Your task to perform on an android device: Open Google Chrome and click the shortcut for Amazon.com Image 0: 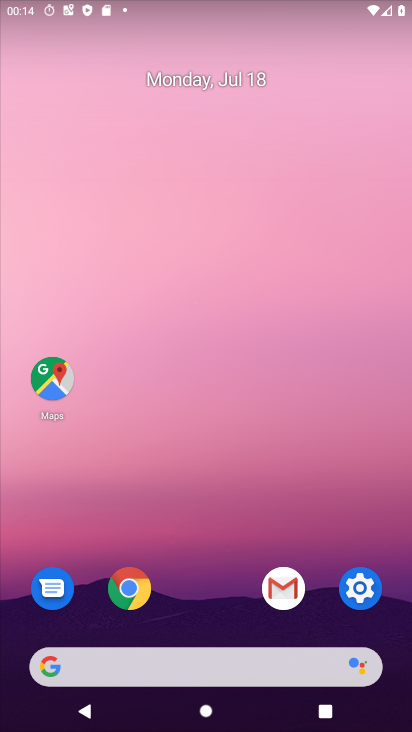
Step 0: press home button
Your task to perform on an android device: Open Google Chrome and click the shortcut for Amazon.com Image 1: 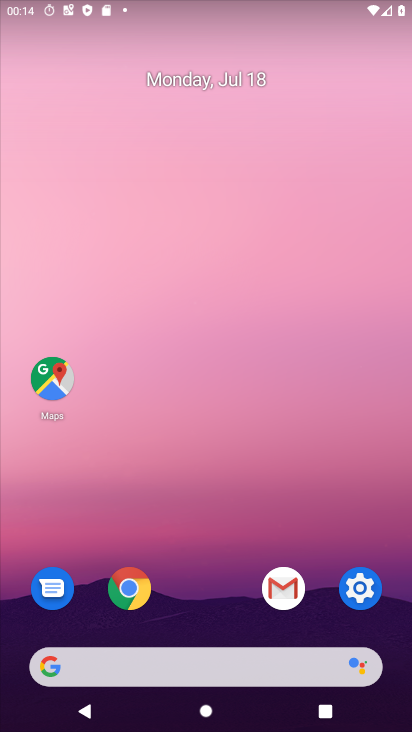
Step 1: click (116, 595)
Your task to perform on an android device: Open Google Chrome and click the shortcut for Amazon.com Image 2: 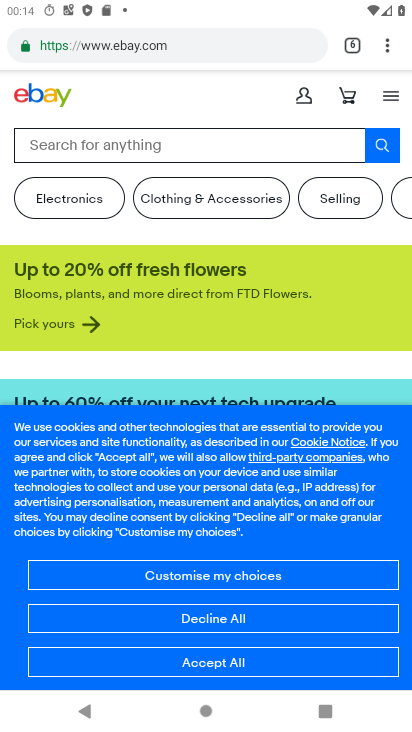
Step 2: click (344, 46)
Your task to perform on an android device: Open Google Chrome and click the shortcut for Amazon.com Image 3: 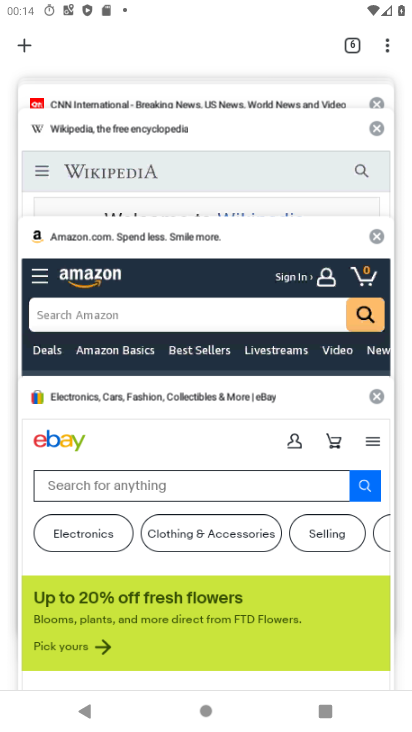
Step 3: click (156, 271)
Your task to perform on an android device: Open Google Chrome and click the shortcut for Amazon.com Image 4: 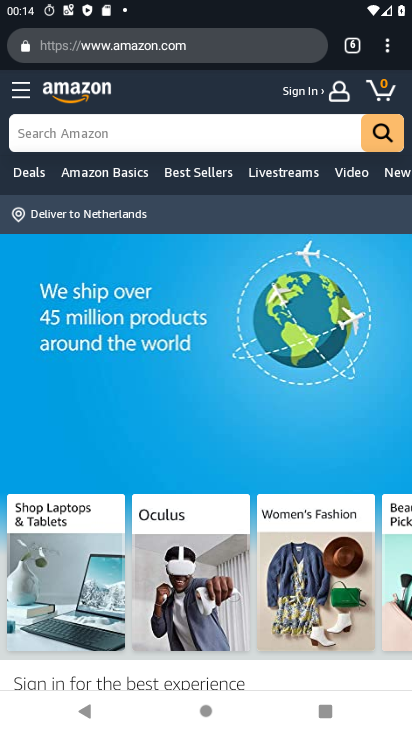
Step 4: click (385, 40)
Your task to perform on an android device: Open Google Chrome and click the shortcut for Amazon.com Image 5: 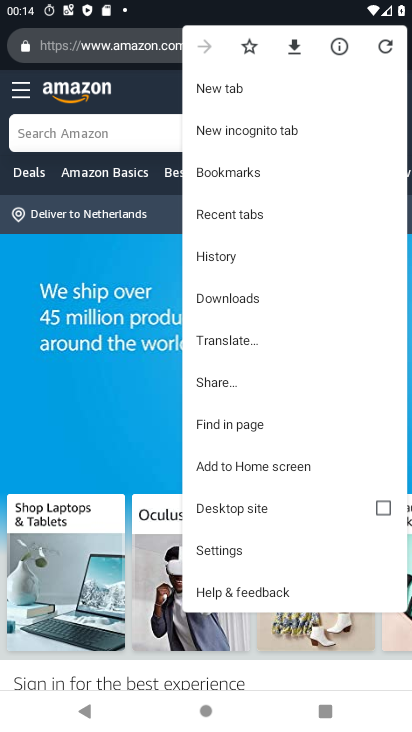
Step 5: click (255, 469)
Your task to perform on an android device: Open Google Chrome and click the shortcut for Amazon.com Image 6: 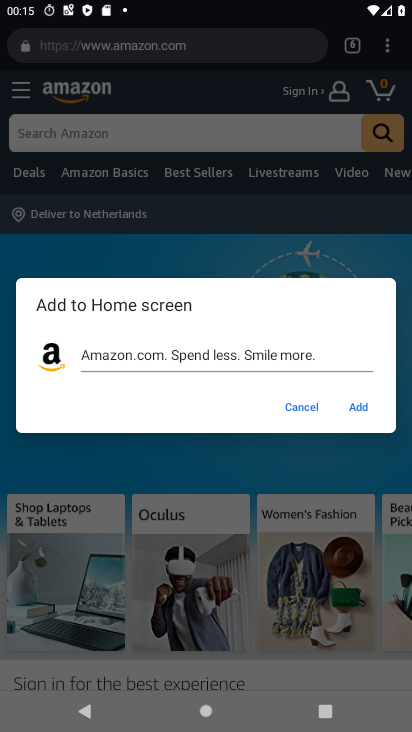
Step 6: click (356, 405)
Your task to perform on an android device: Open Google Chrome and click the shortcut for Amazon.com Image 7: 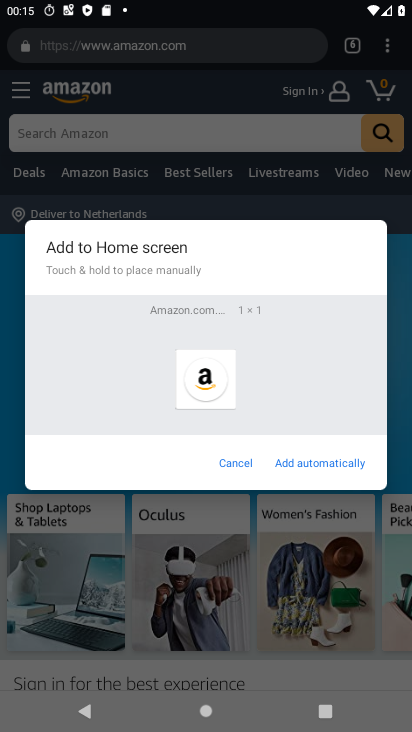
Step 7: click (346, 452)
Your task to perform on an android device: Open Google Chrome and click the shortcut for Amazon.com Image 8: 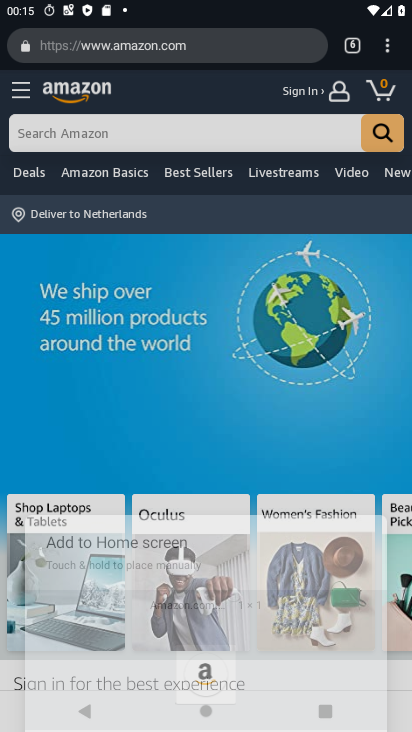
Step 8: task complete